Your task to perform on an android device: open the mobile data screen to see how much data has been used Image 0: 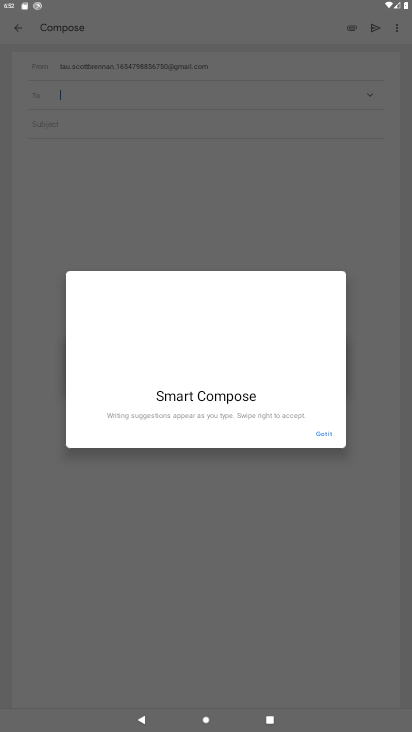
Step 0: press home button
Your task to perform on an android device: open the mobile data screen to see how much data has been used Image 1: 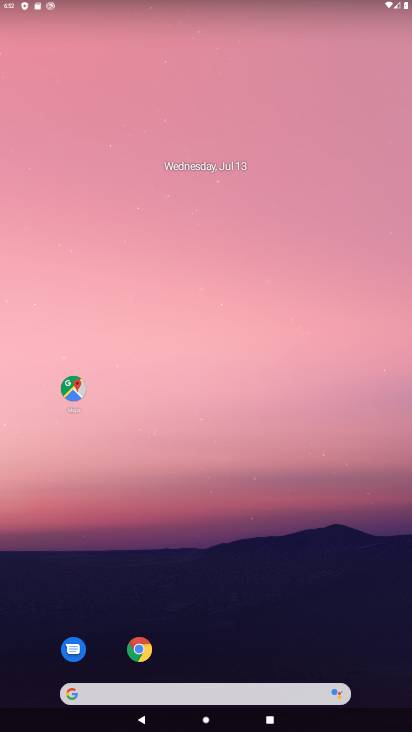
Step 1: drag from (230, 691) to (266, 50)
Your task to perform on an android device: open the mobile data screen to see how much data has been used Image 2: 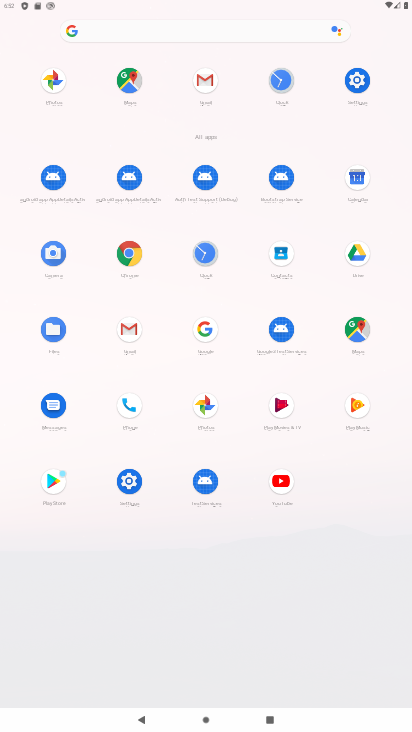
Step 2: click (357, 83)
Your task to perform on an android device: open the mobile data screen to see how much data has been used Image 3: 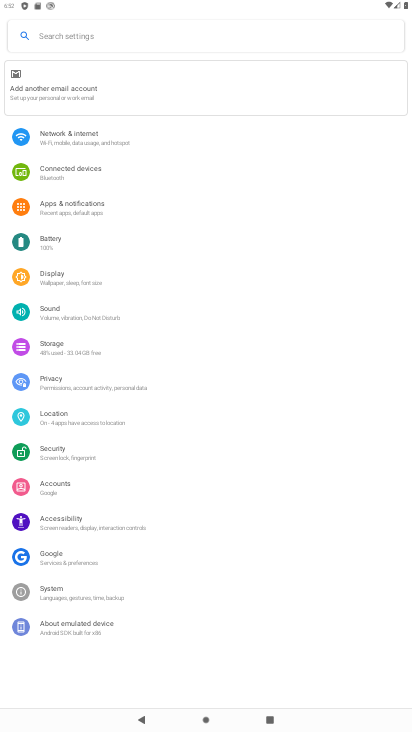
Step 3: click (94, 139)
Your task to perform on an android device: open the mobile data screen to see how much data has been used Image 4: 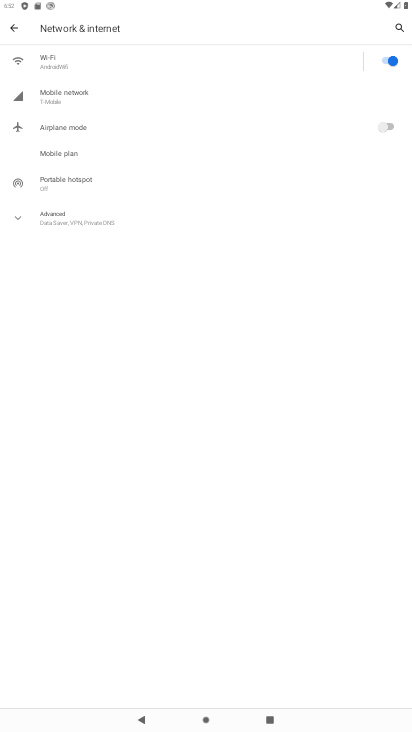
Step 4: click (79, 88)
Your task to perform on an android device: open the mobile data screen to see how much data has been used Image 5: 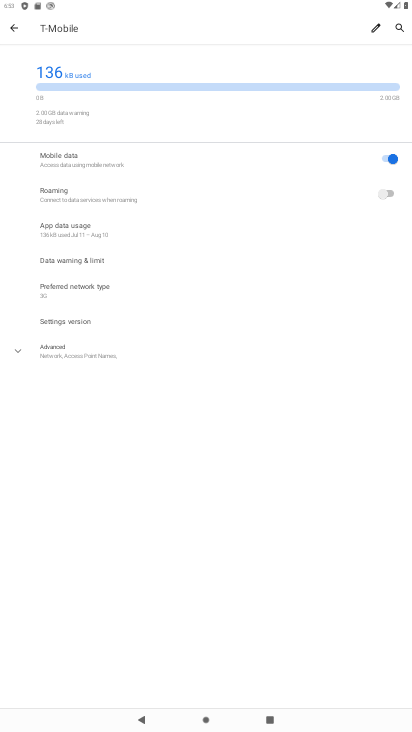
Step 5: task complete